Your task to perform on an android device: search for starred emails in the gmail app Image 0: 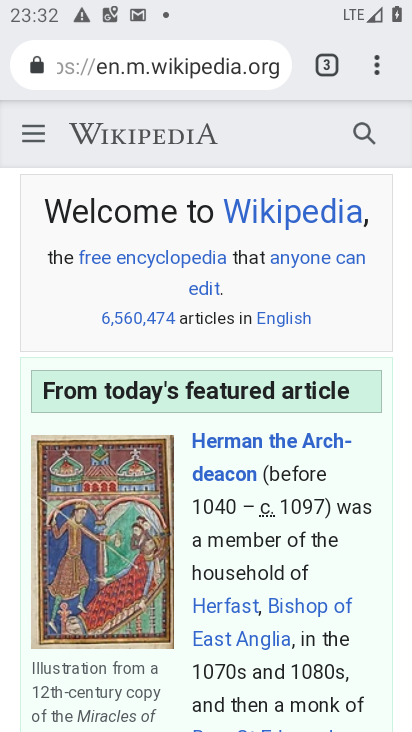
Step 0: press home button
Your task to perform on an android device: search for starred emails in the gmail app Image 1: 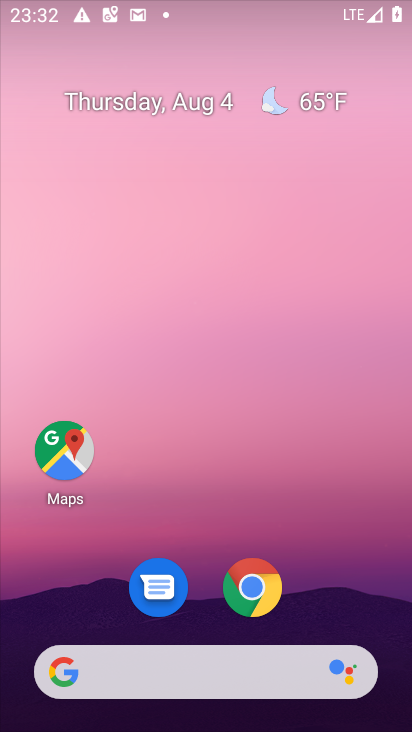
Step 1: drag from (155, 635) to (179, 178)
Your task to perform on an android device: search for starred emails in the gmail app Image 2: 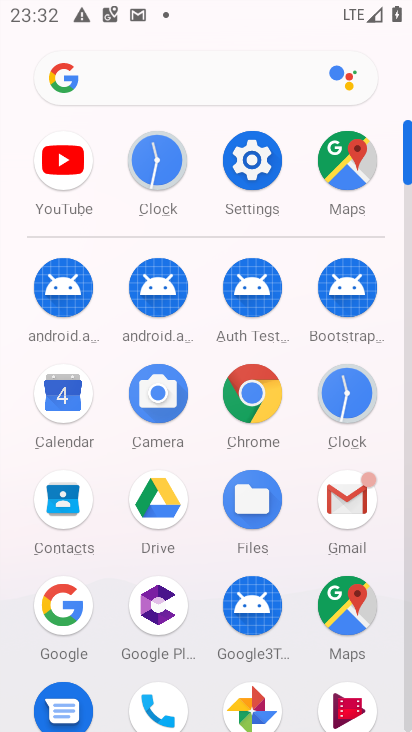
Step 2: click (365, 500)
Your task to perform on an android device: search for starred emails in the gmail app Image 3: 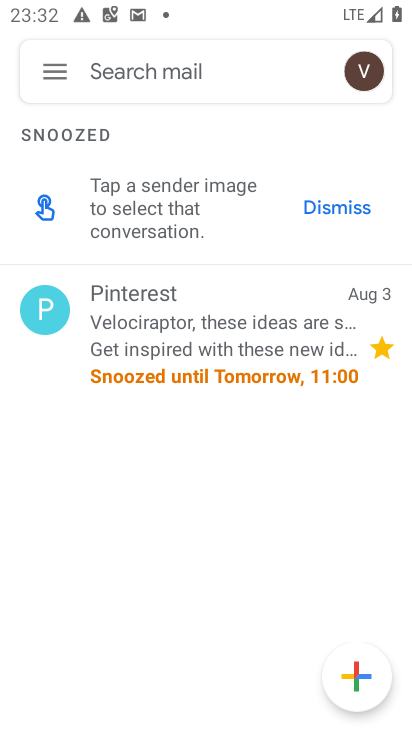
Step 3: click (56, 77)
Your task to perform on an android device: search for starred emails in the gmail app Image 4: 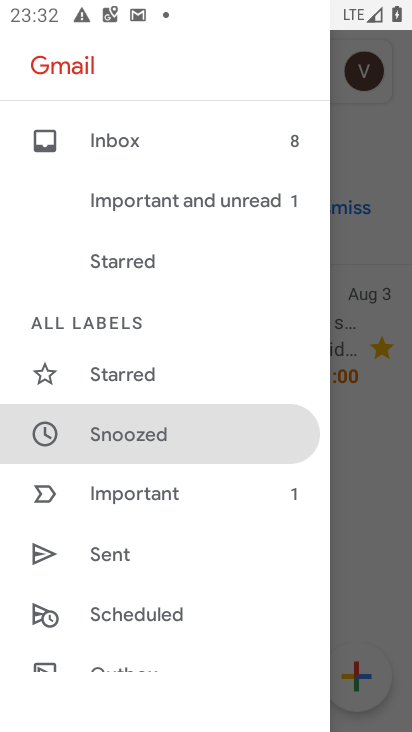
Step 4: click (136, 361)
Your task to perform on an android device: search for starred emails in the gmail app Image 5: 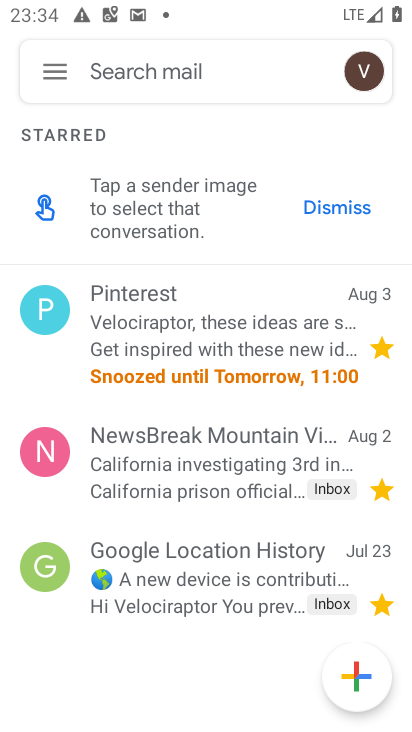
Step 5: task complete